Your task to perform on an android device: Search for panasonic triple a on costco, select the first entry, add it to the cart, then select checkout. Image 0: 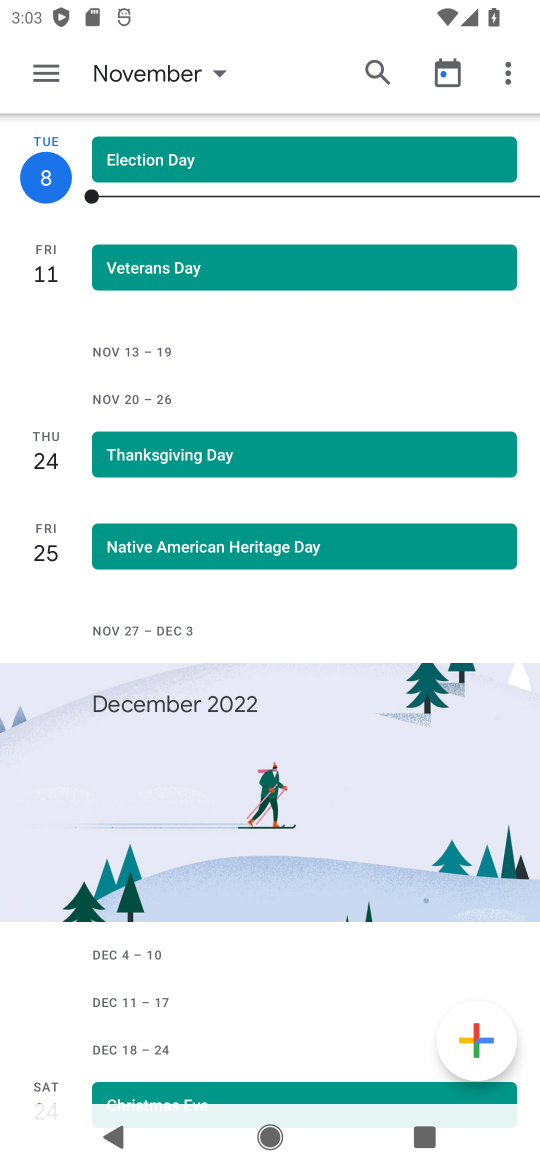
Step 0: press home button
Your task to perform on an android device: Search for panasonic triple a on costco, select the first entry, add it to the cart, then select checkout. Image 1: 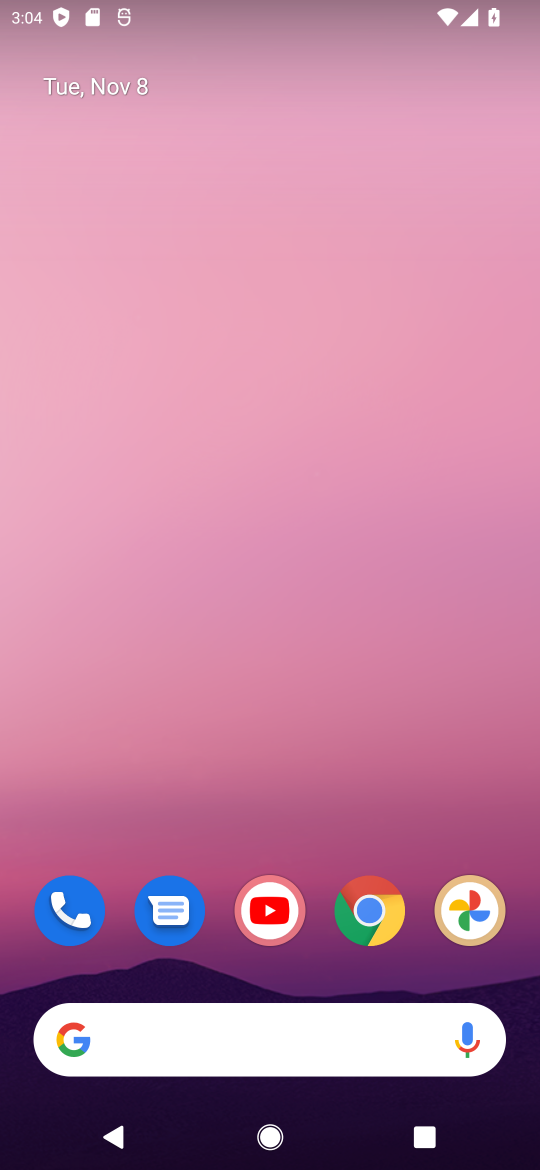
Step 1: drag from (308, 942) to (392, 198)
Your task to perform on an android device: Search for panasonic triple a on costco, select the first entry, add it to the cart, then select checkout. Image 2: 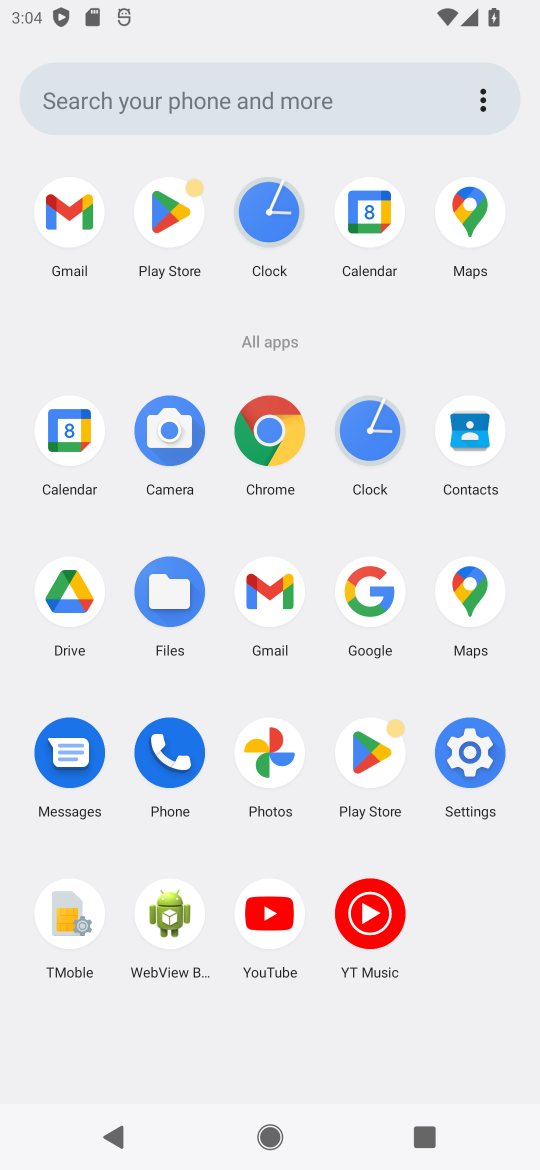
Step 2: click (272, 431)
Your task to perform on an android device: Search for panasonic triple a on costco, select the first entry, add it to the cart, then select checkout. Image 3: 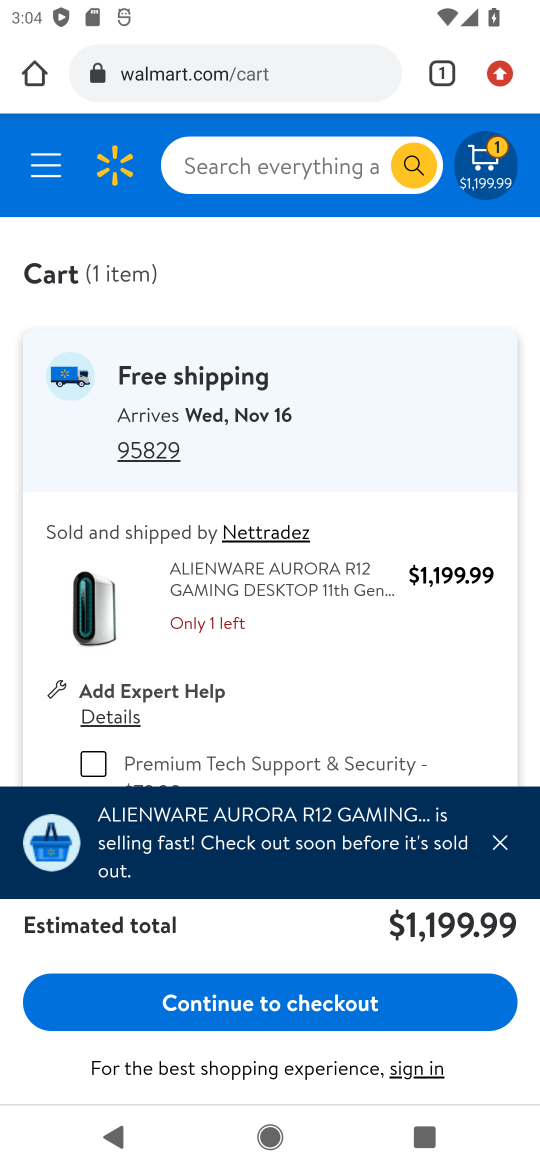
Step 3: click (264, 68)
Your task to perform on an android device: Search for panasonic triple a on costco, select the first entry, add it to the cart, then select checkout. Image 4: 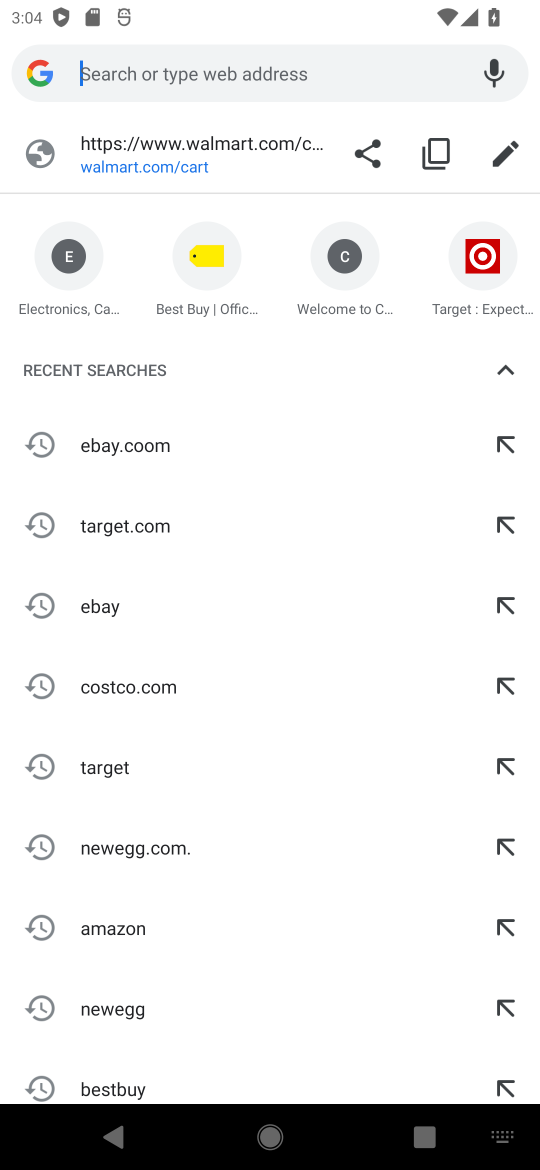
Step 4: type "costco.com"
Your task to perform on an android device: Search for panasonic triple a on costco, select the first entry, add it to the cart, then select checkout. Image 5: 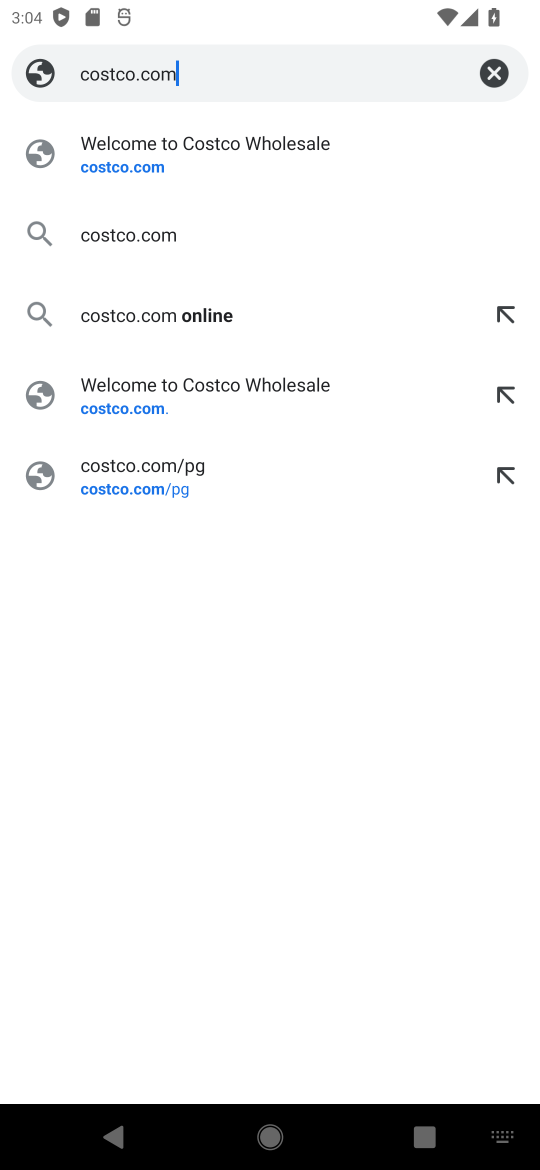
Step 5: press enter
Your task to perform on an android device: Search for panasonic triple a on costco, select the first entry, add it to the cart, then select checkout. Image 6: 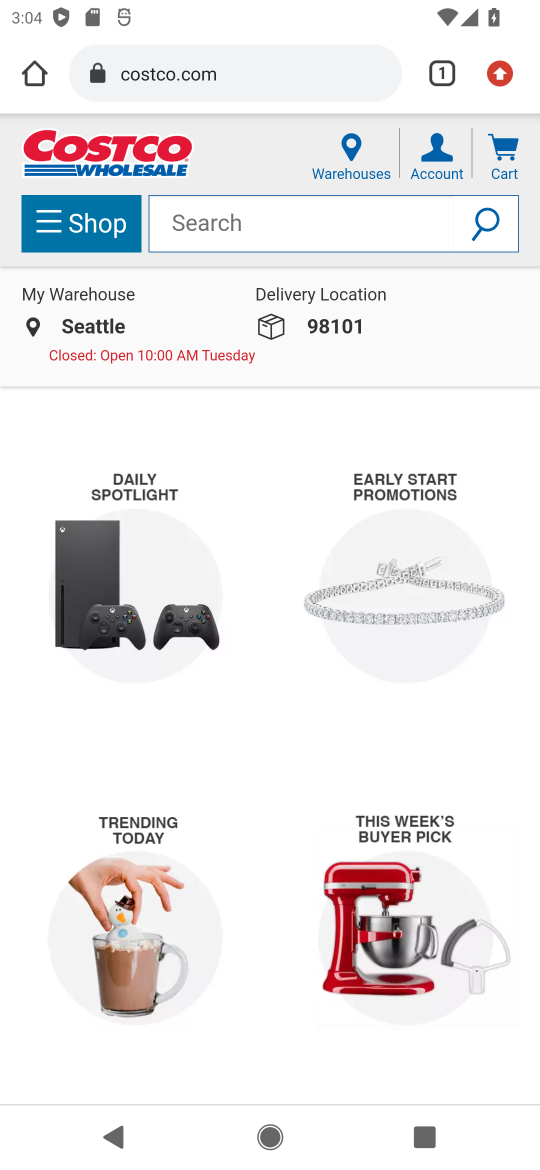
Step 6: click (344, 241)
Your task to perform on an android device: Search for panasonic triple a on costco, select the first entry, add it to the cart, then select checkout. Image 7: 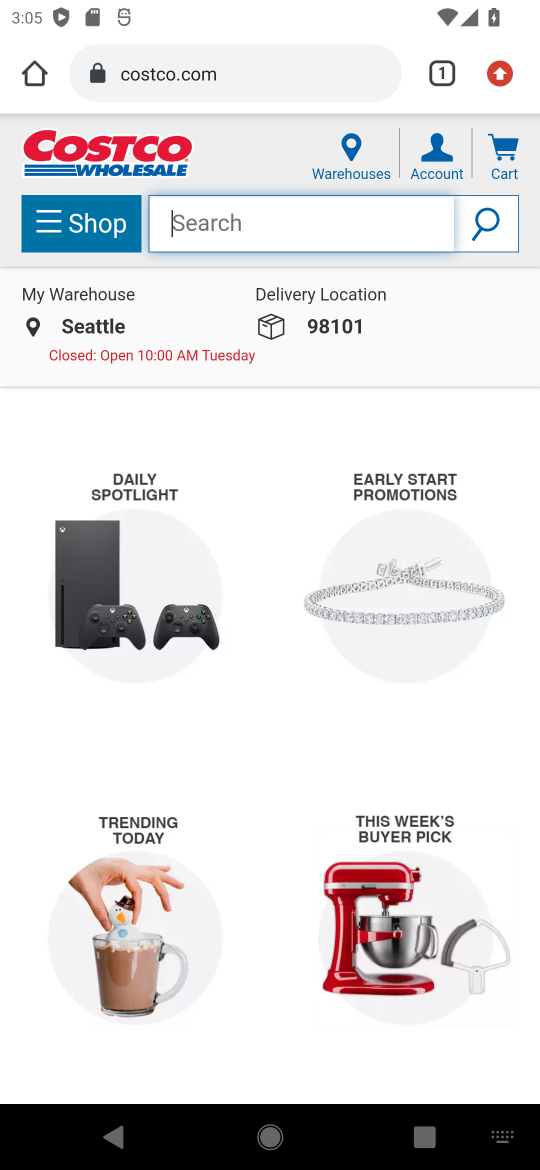
Step 7: type "panasonic triple a"
Your task to perform on an android device: Search for panasonic triple a on costco, select the first entry, add it to the cart, then select checkout. Image 8: 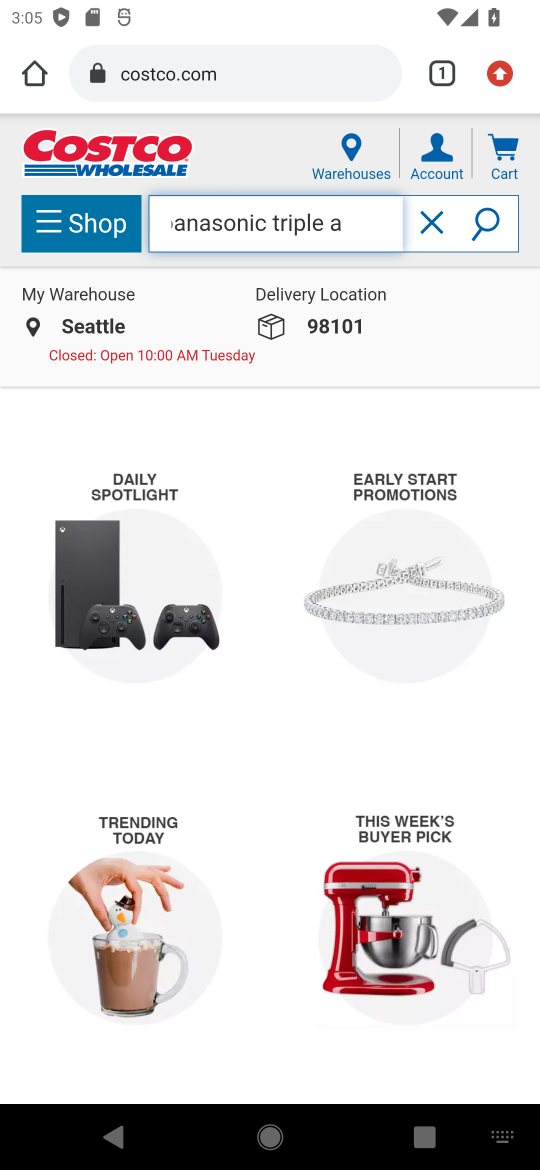
Step 8: press enter
Your task to perform on an android device: Search for panasonic triple a on costco, select the first entry, add it to the cart, then select checkout. Image 9: 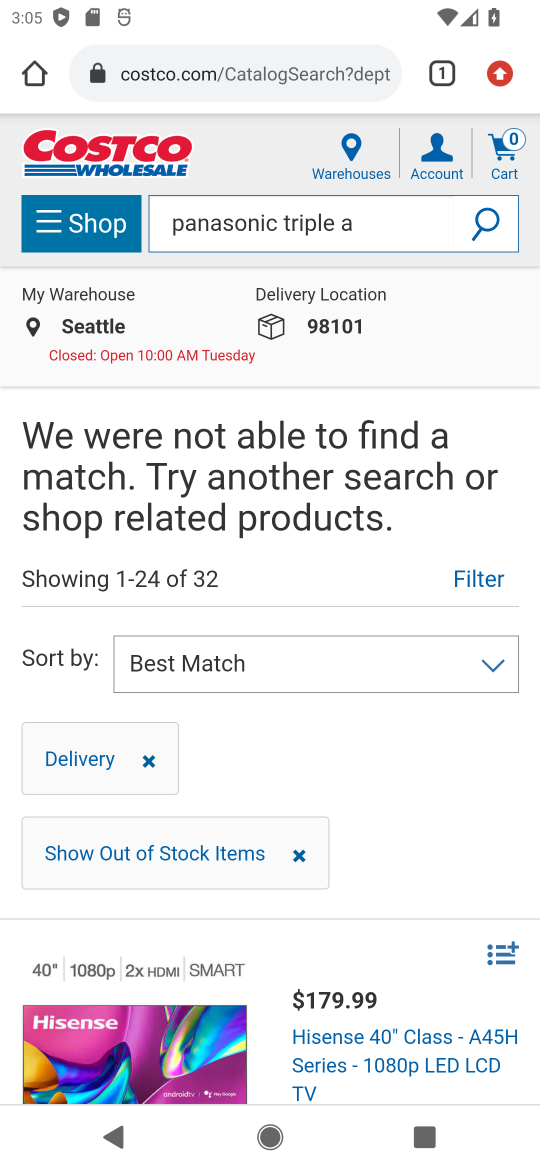
Step 9: task complete